Your task to perform on an android device: turn off airplane mode Image 0: 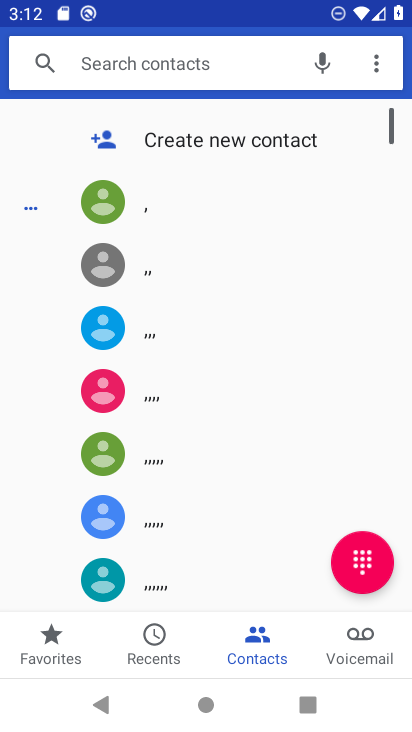
Step 0: press home button
Your task to perform on an android device: turn off airplane mode Image 1: 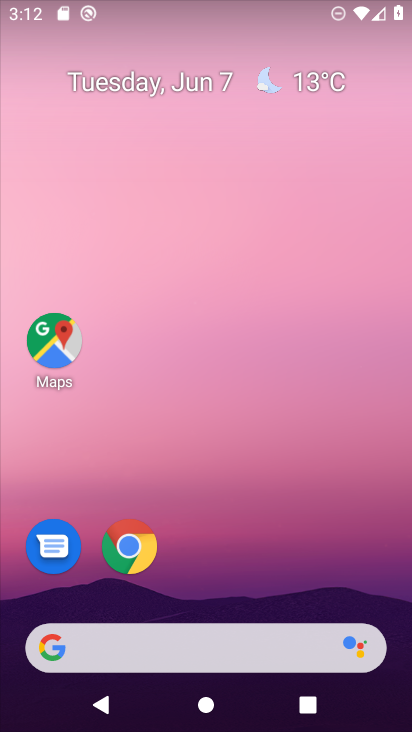
Step 1: task complete